Your task to perform on an android device: Go to Android settings Image 0: 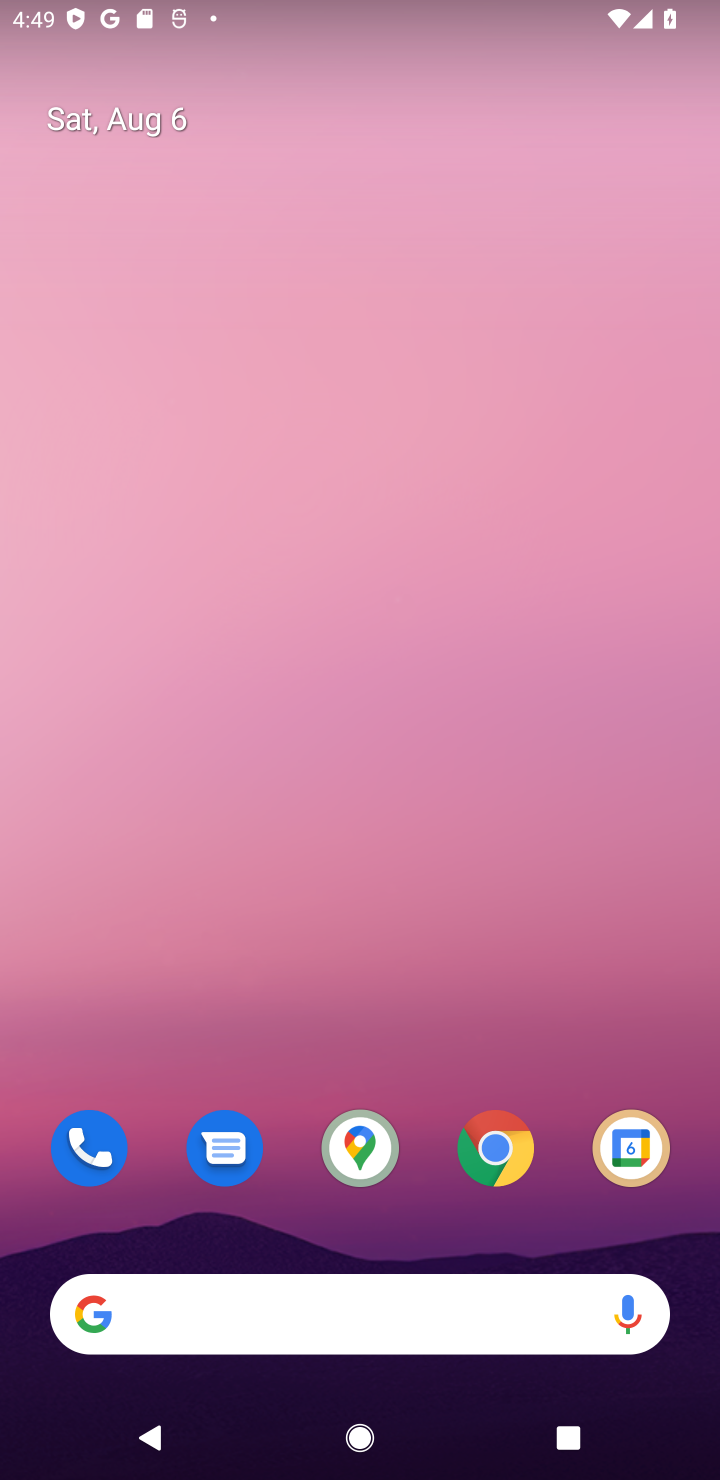
Step 0: drag from (412, 1226) to (285, 53)
Your task to perform on an android device: Go to Android settings Image 1: 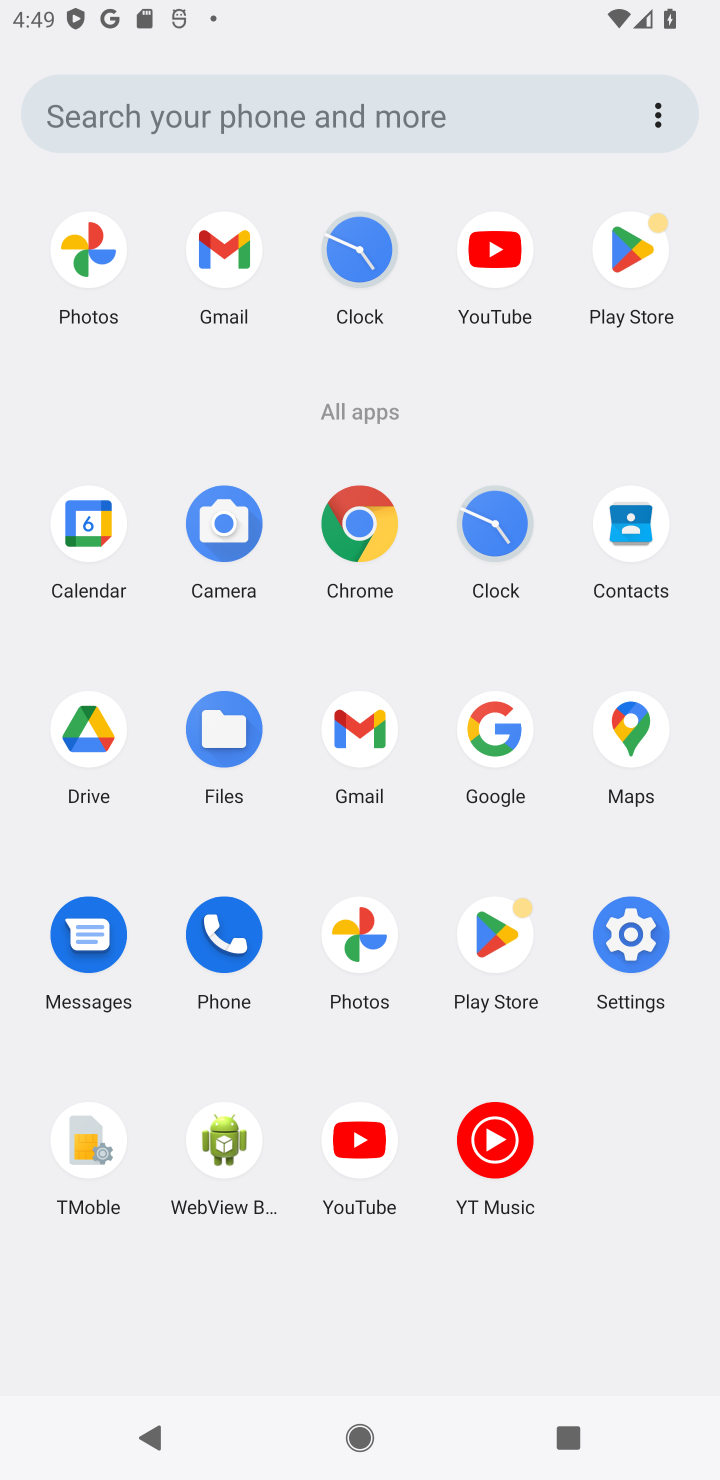
Step 1: click (633, 908)
Your task to perform on an android device: Go to Android settings Image 2: 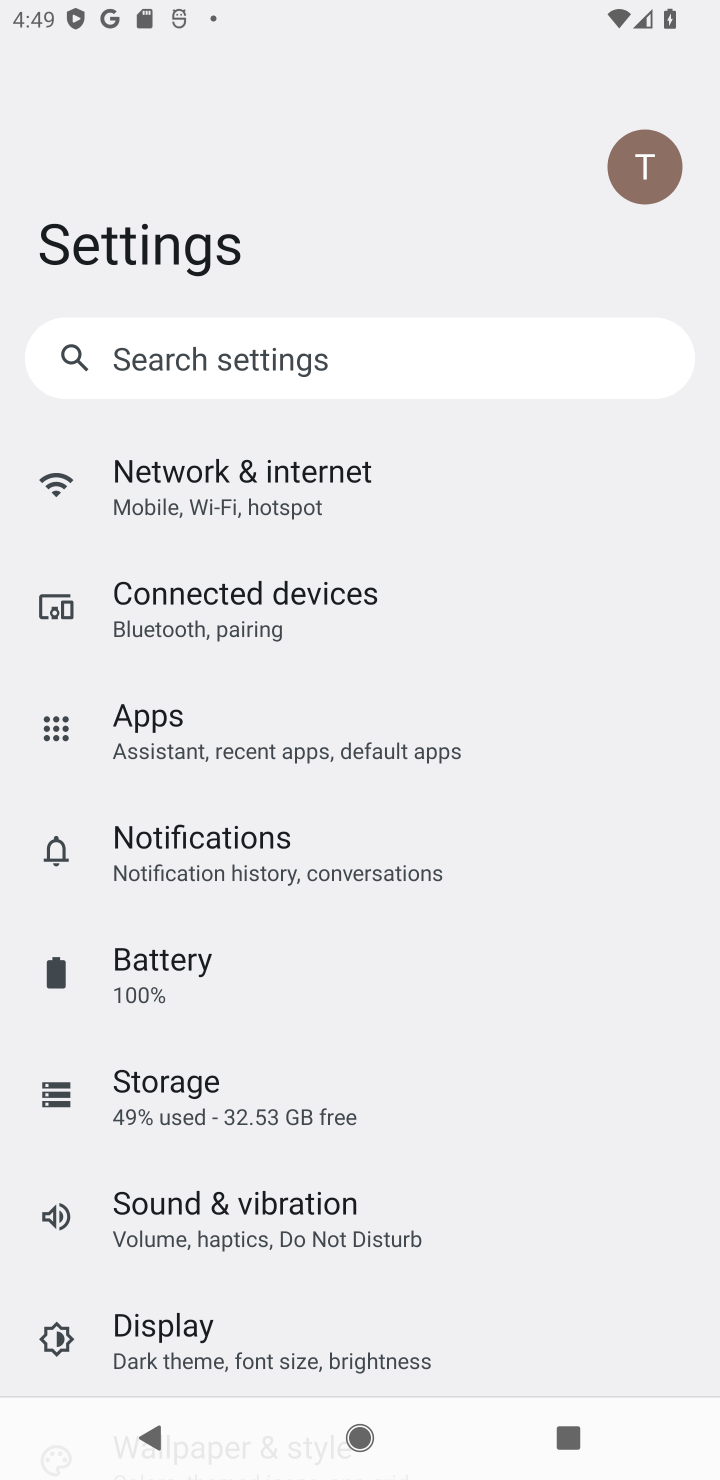
Step 2: task complete